Your task to perform on an android device: Is it going to rain tomorrow? Image 0: 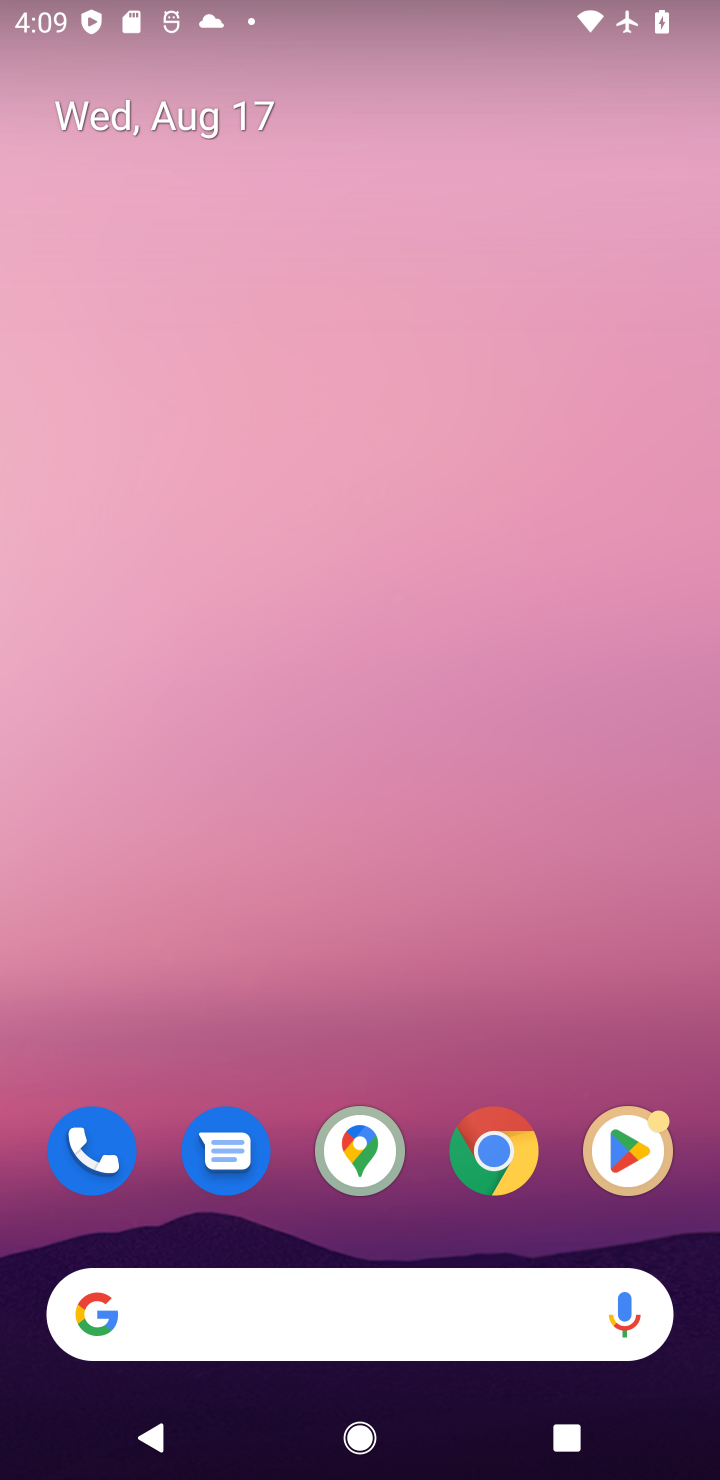
Step 0: drag from (318, 1172) to (308, 92)
Your task to perform on an android device: Is it going to rain tomorrow? Image 1: 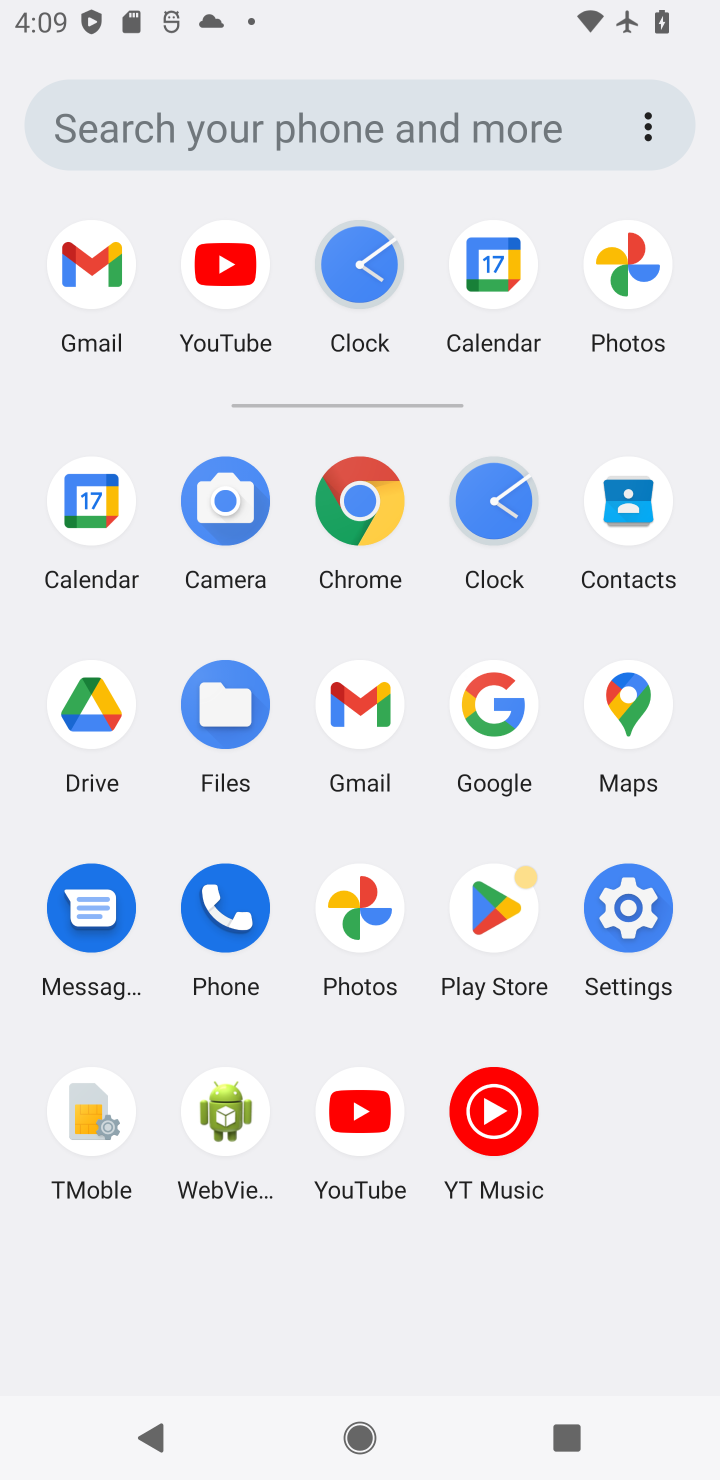
Step 1: click (369, 500)
Your task to perform on an android device: Is it going to rain tomorrow? Image 2: 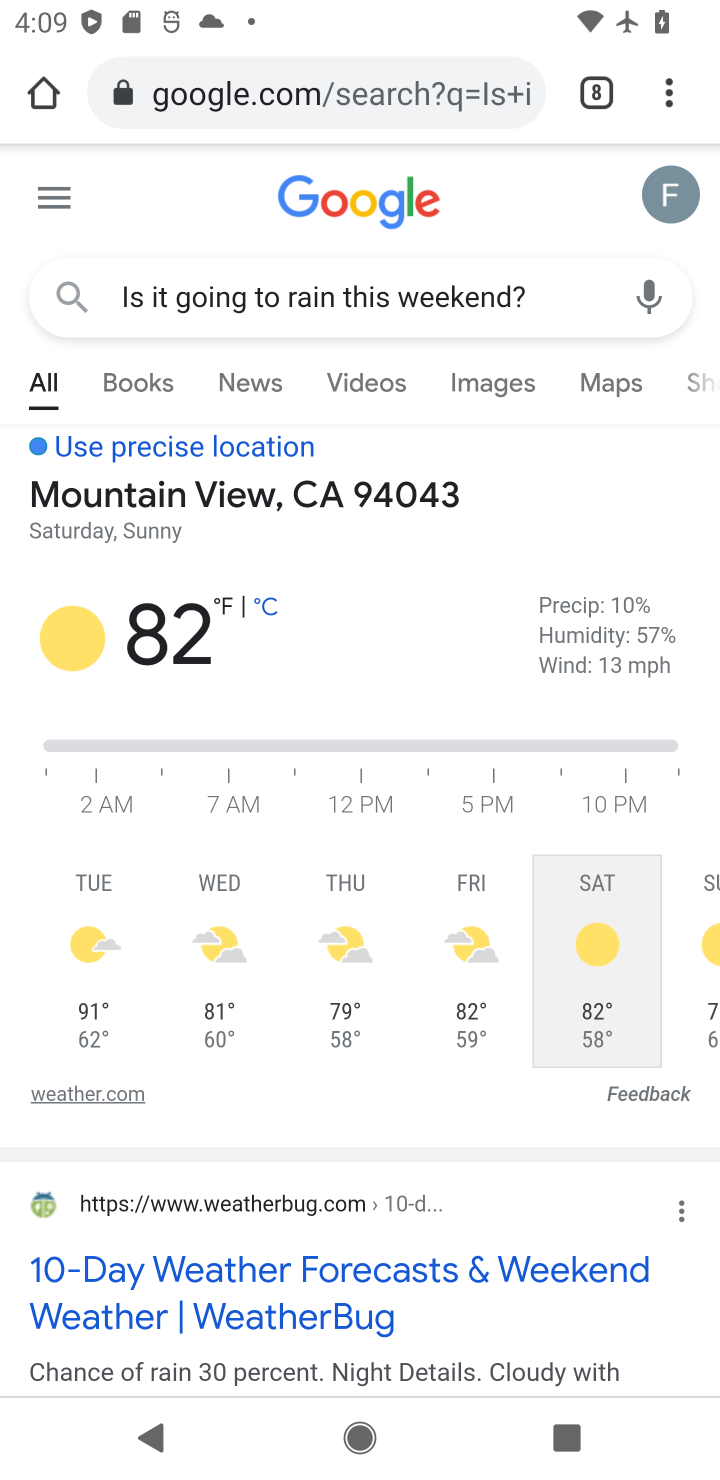
Step 2: click (674, 94)
Your task to perform on an android device: Is it going to rain tomorrow? Image 3: 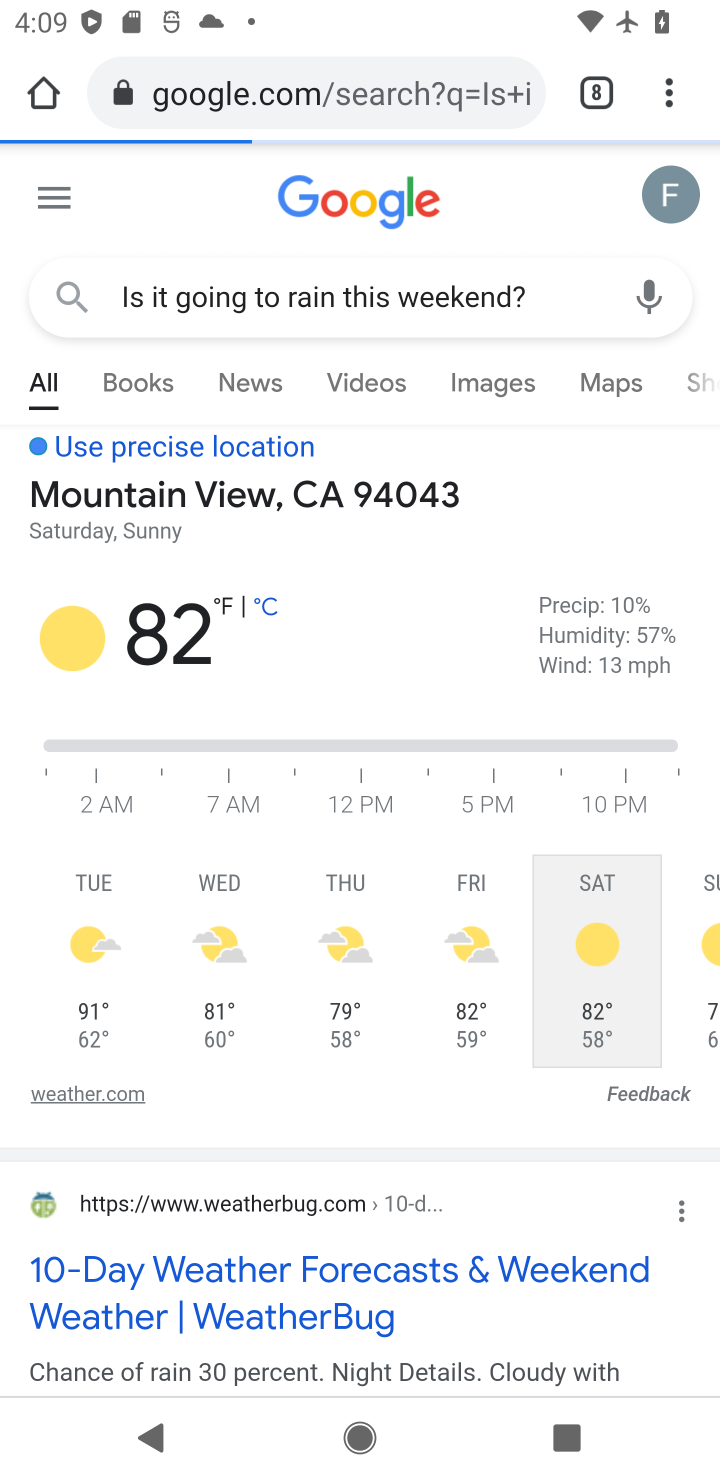
Step 3: click (662, 94)
Your task to perform on an android device: Is it going to rain tomorrow? Image 4: 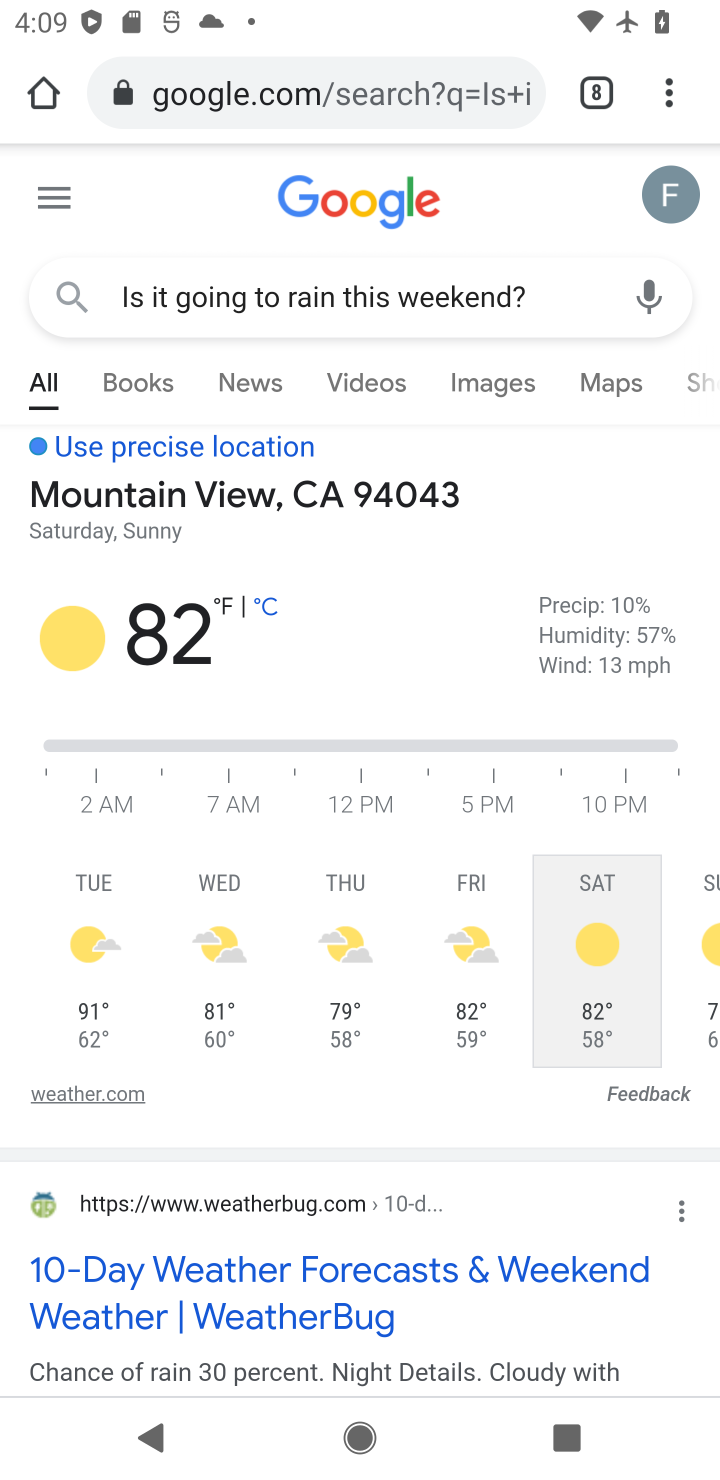
Step 4: click (647, 83)
Your task to perform on an android device: Is it going to rain tomorrow? Image 5: 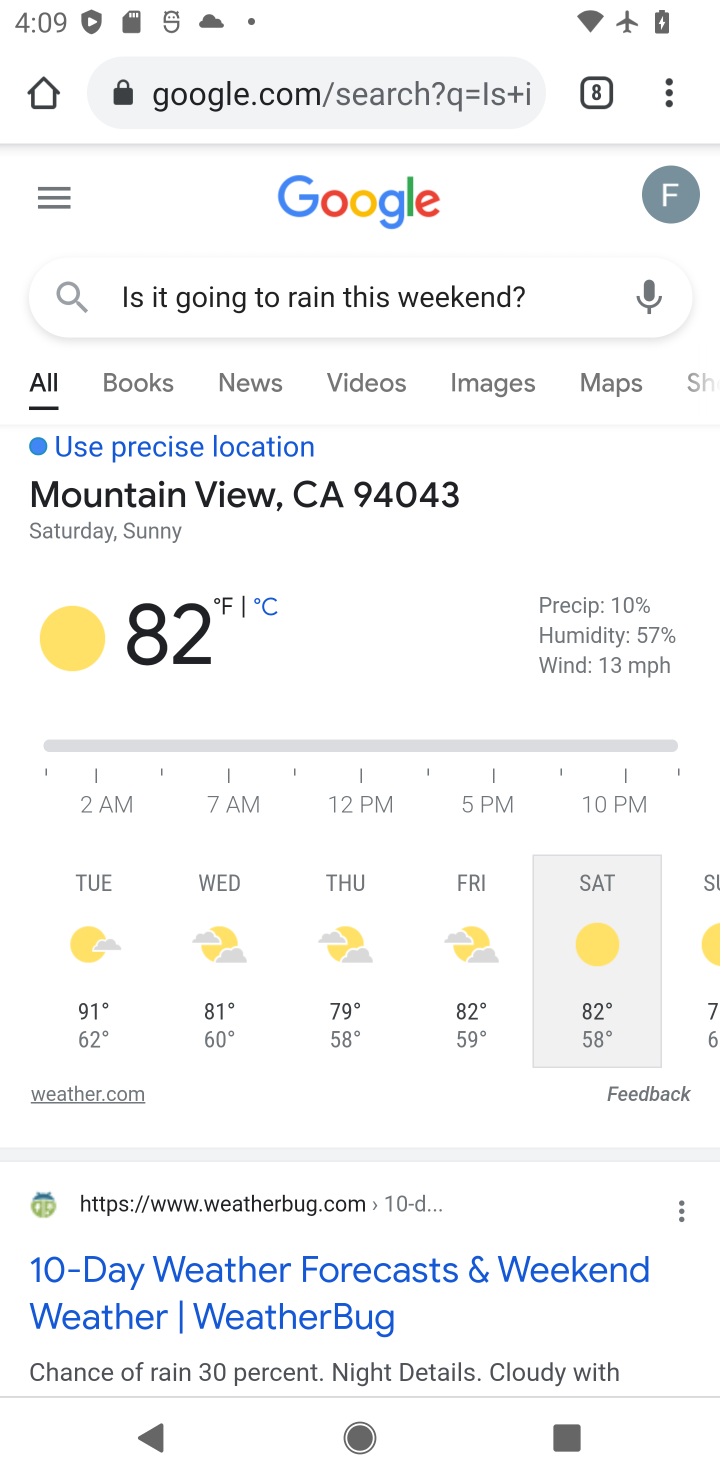
Step 5: click (635, 83)
Your task to perform on an android device: Is it going to rain tomorrow? Image 6: 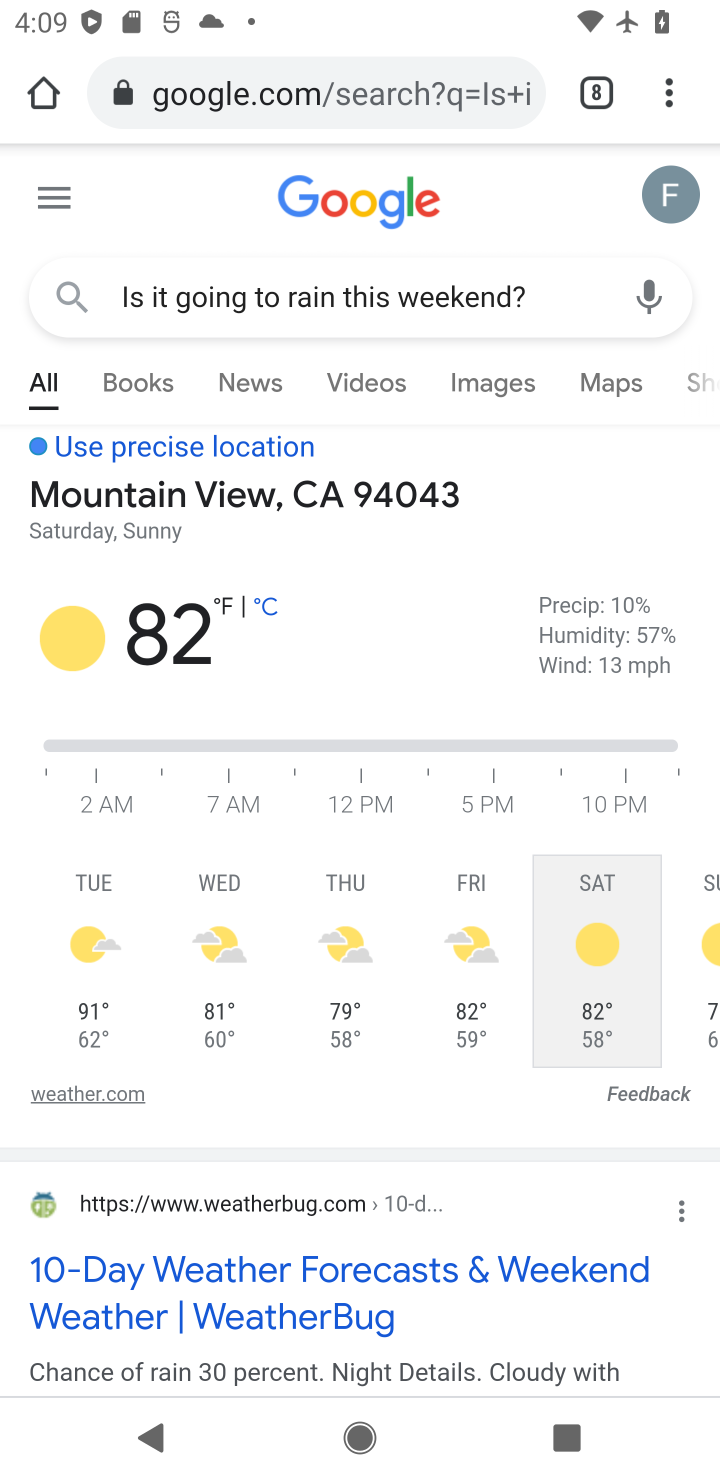
Step 6: click (663, 97)
Your task to perform on an android device: Is it going to rain tomorrow? Image 7: 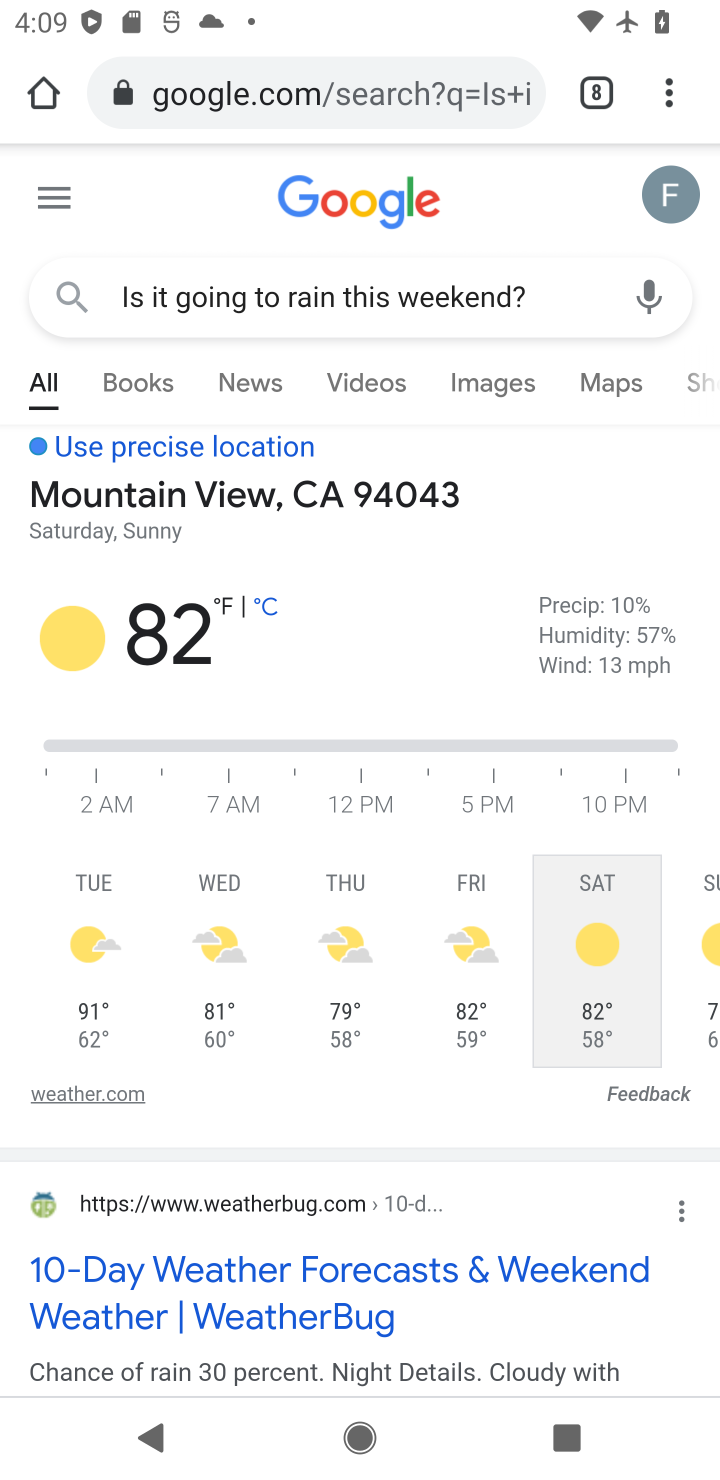
Step 7: click (648, 82)
Your task to perform on an android device: Is it going to rain tomorrow? Image 8: 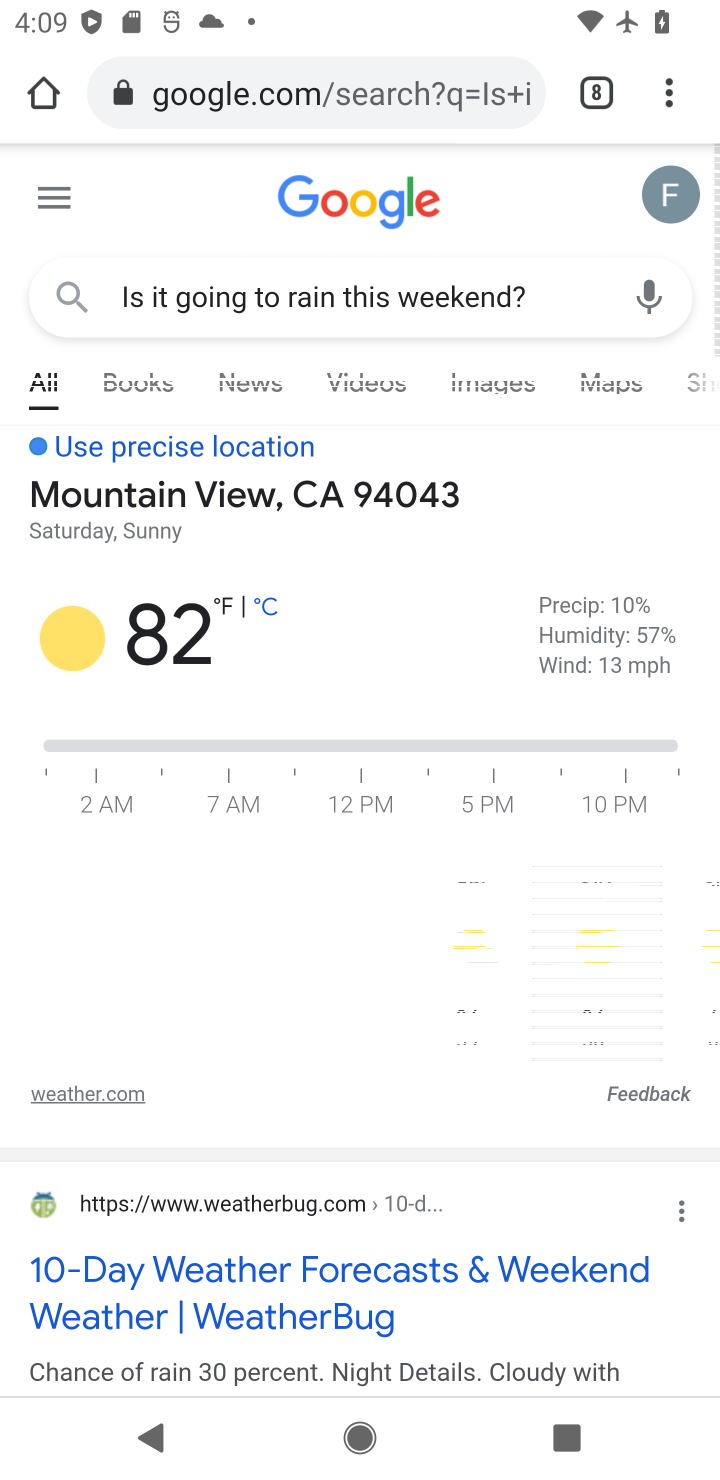
Step 8: click (672, 92)
Your task to perform on an android device: Is it going to rain tomorrow? Image 9: 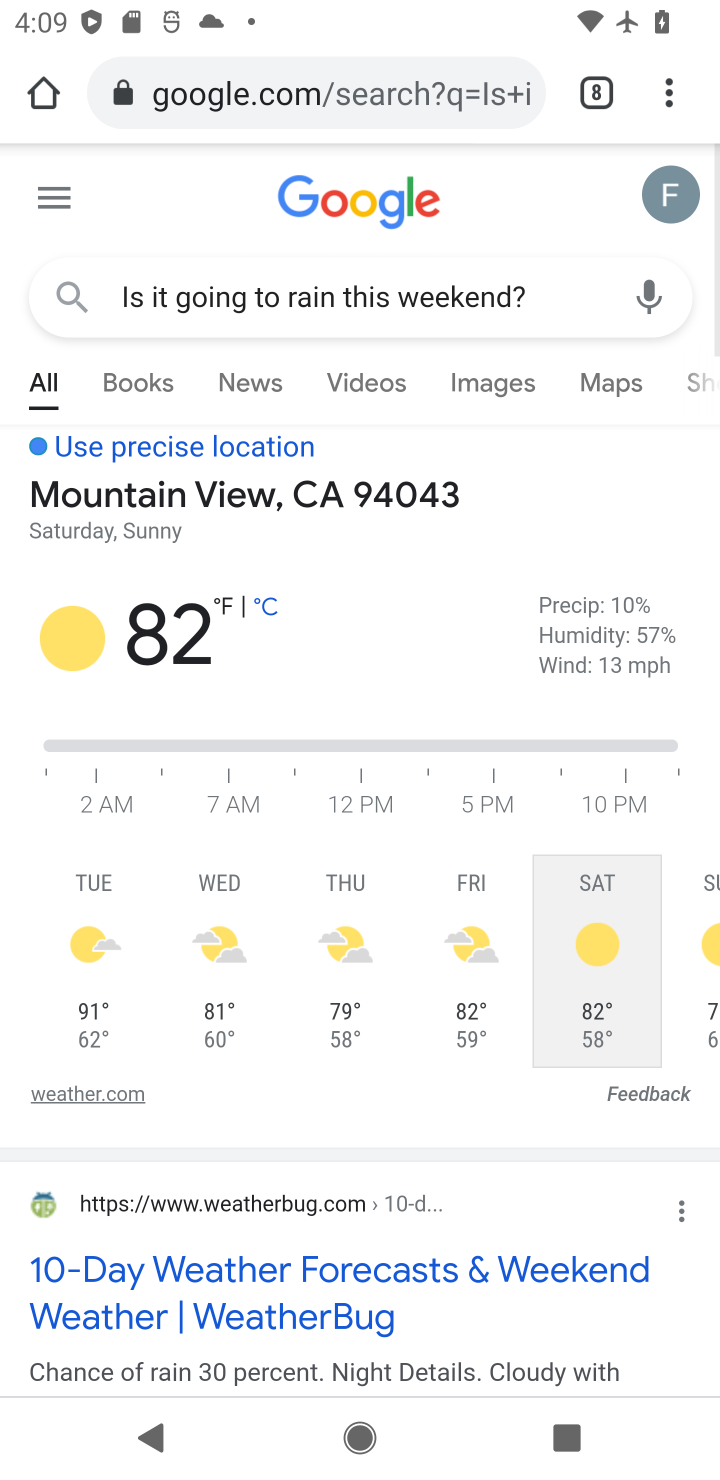
Step 9: click (672, 92)
Your task to perform on an android device: Is it going to rain tomorrow? Image 10: 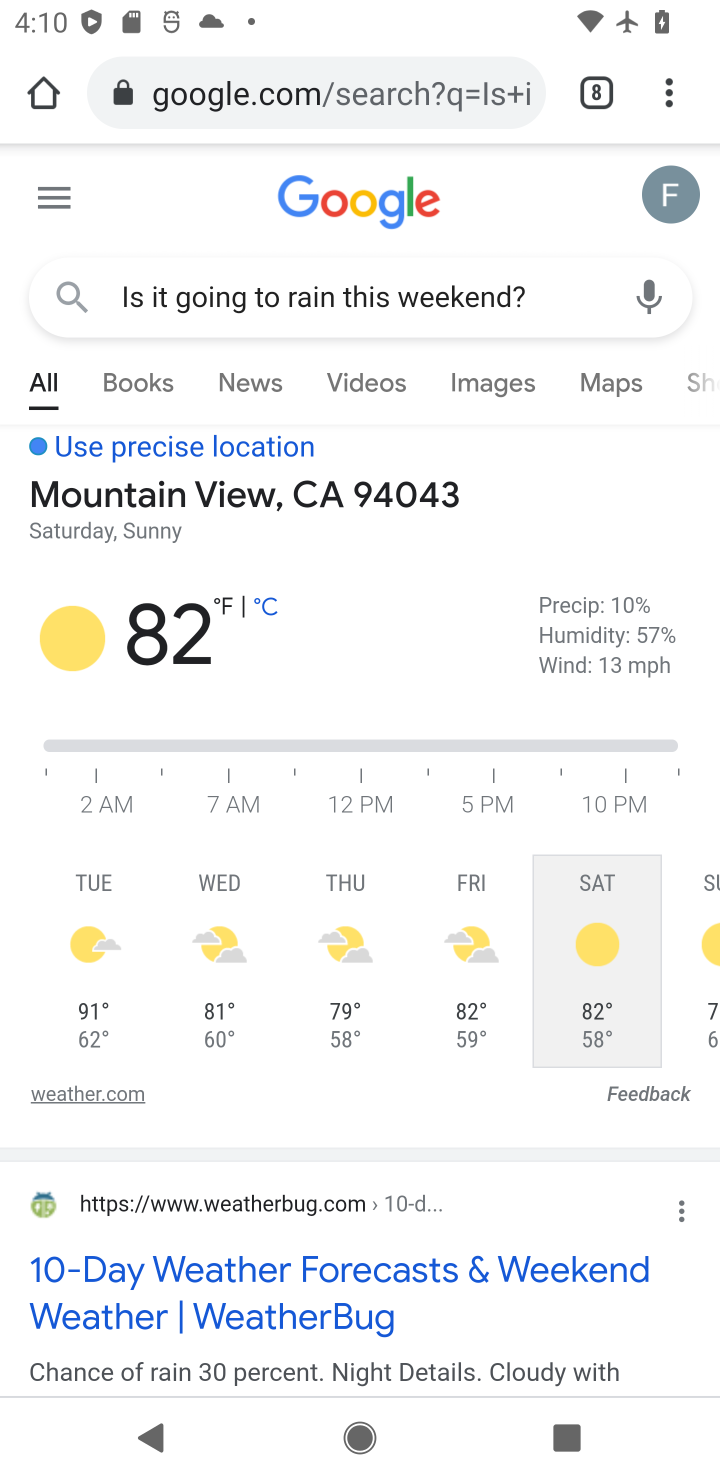
Step 10: click (666, 88)
Your task to perform on an android device: Is it going to rain tomorrow? Image 11: 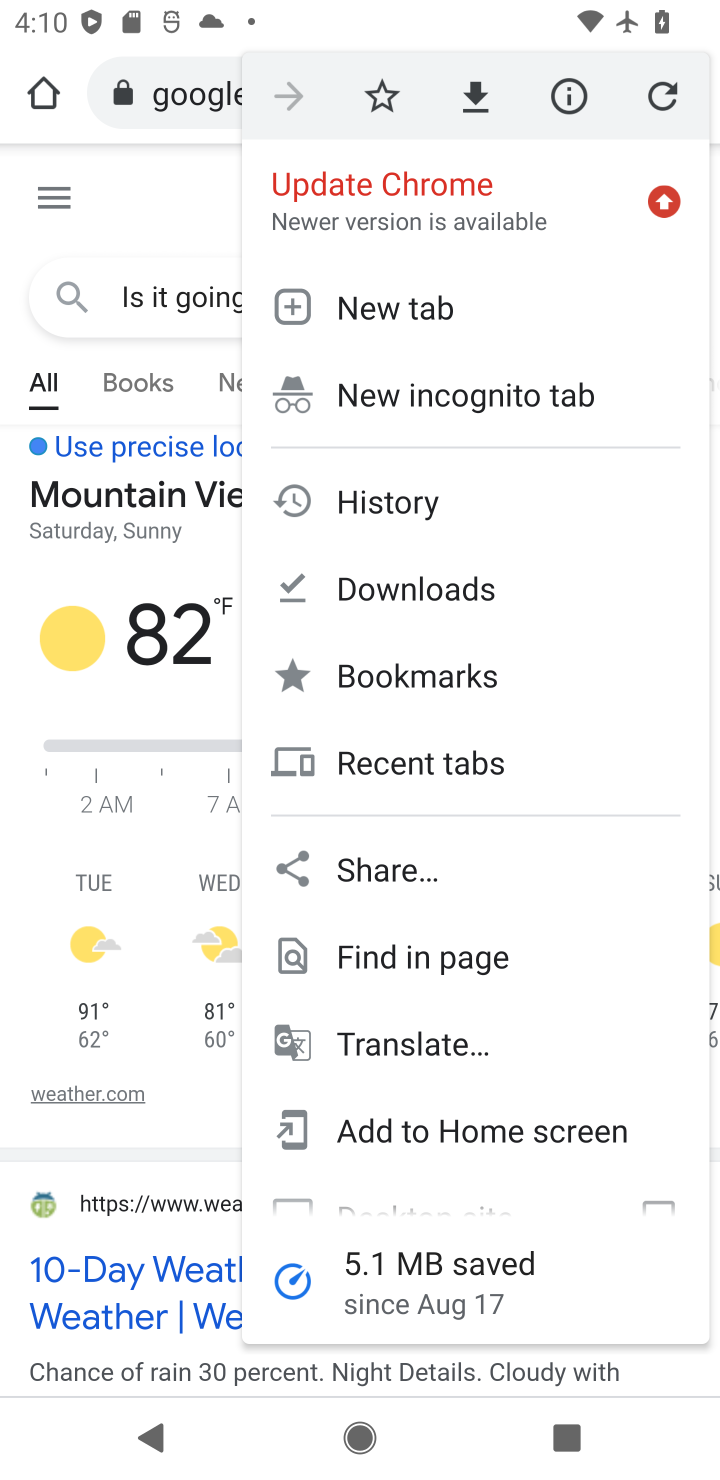
Step 11: click (402, 294)
Your task to perform on an android device: Is it going to rain tomorrow? Image 12: 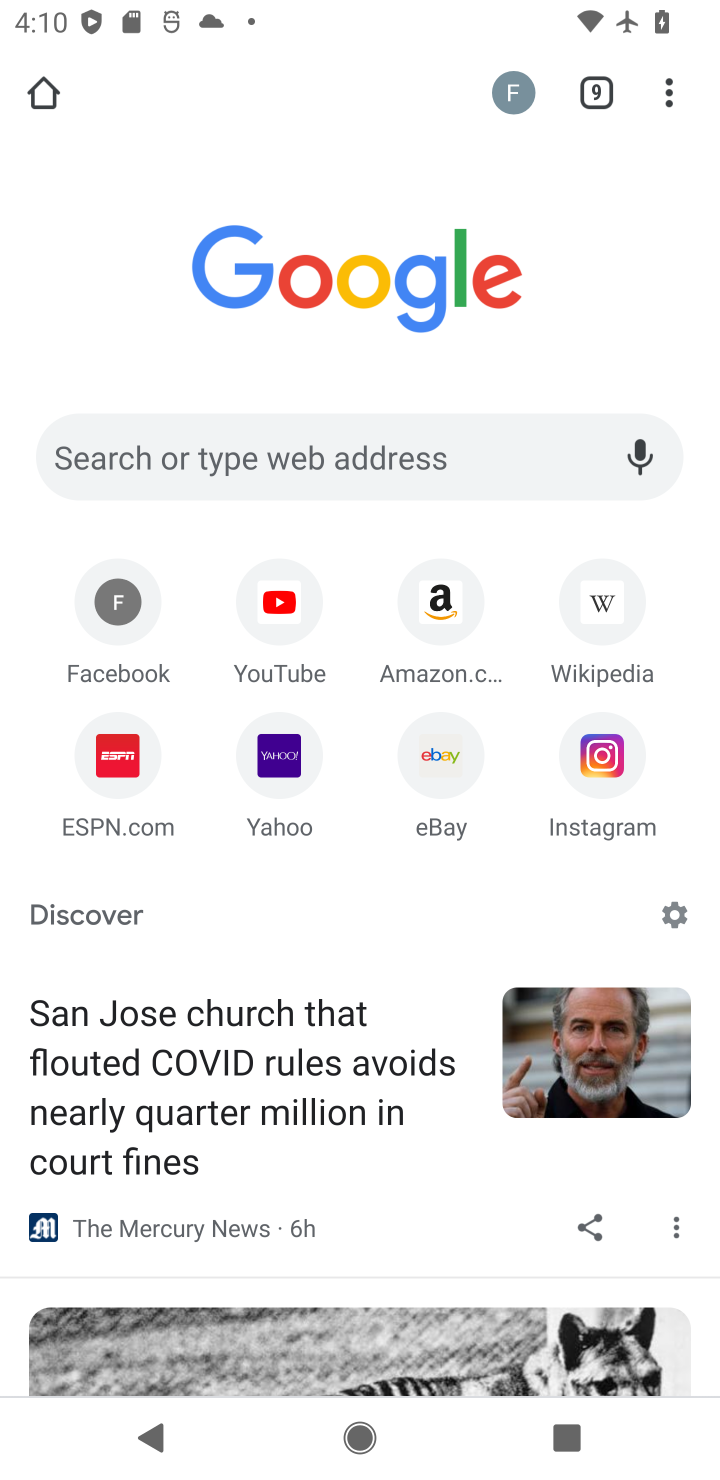
Step 12: click (413, 459)
Your task to perform on an android device: Is it going to rain tomorrow? Image 13: 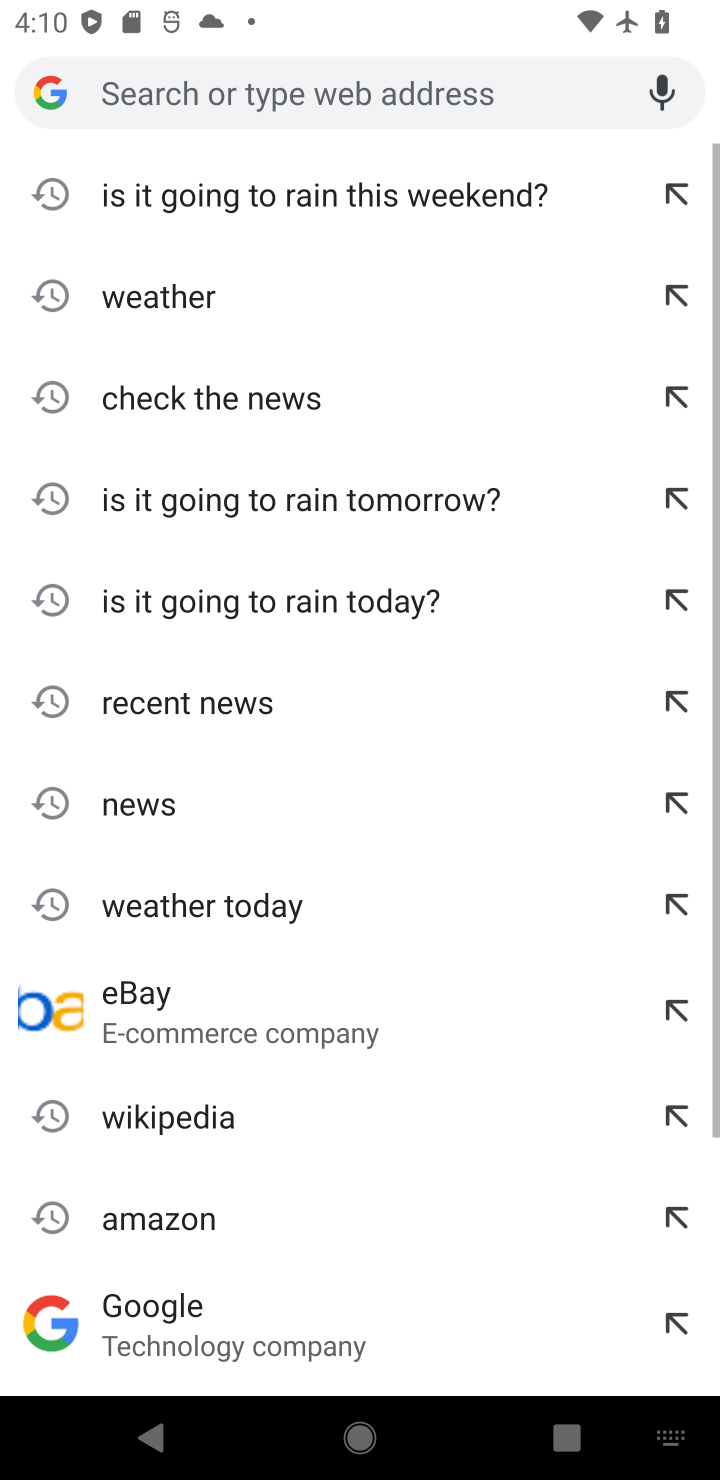
Step 13: type "Is it going to rain tomorrow? "
Your task to perform on an android device: Is it going to rain tomorrow? Image 14: 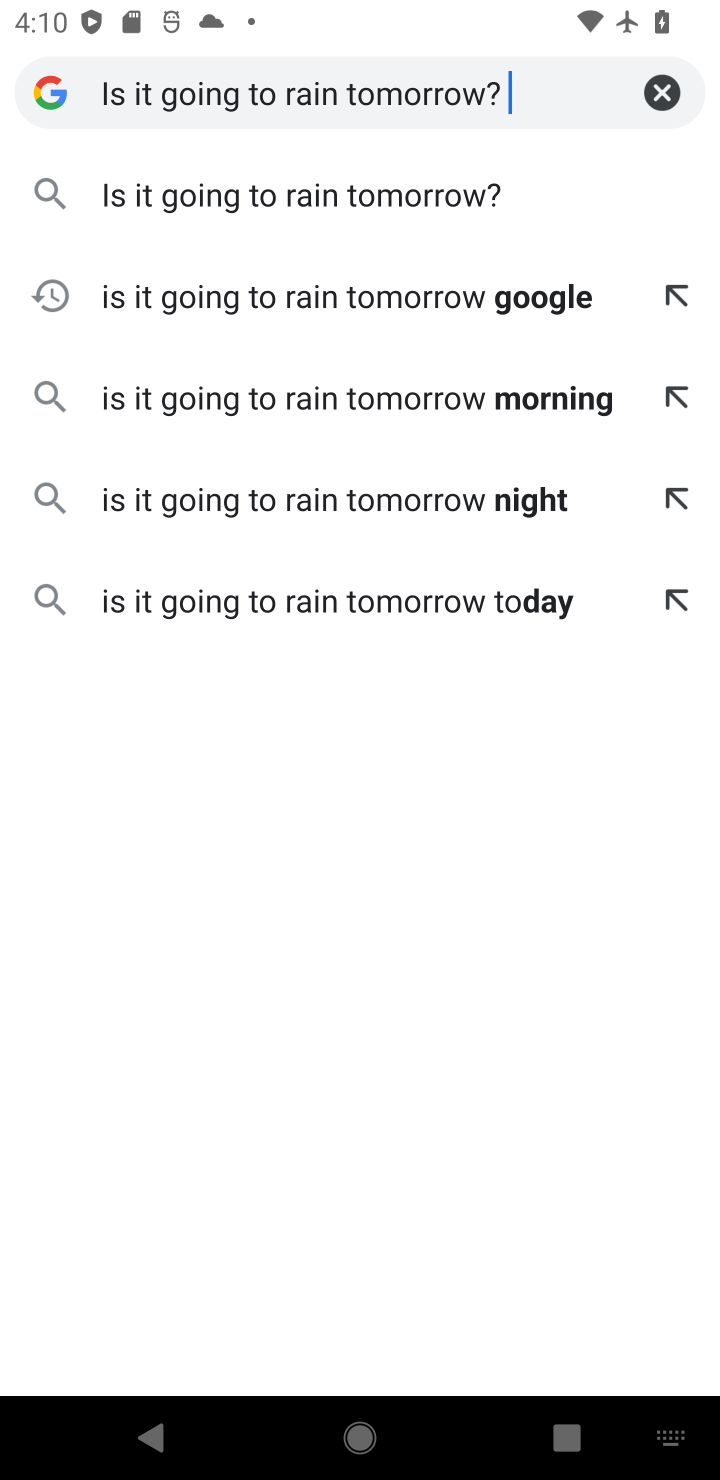
Step 14: drag from (208, 518) to (180, 1068)
Your task to perform on an android device: Is it going to rain tomorrow? Image 15: 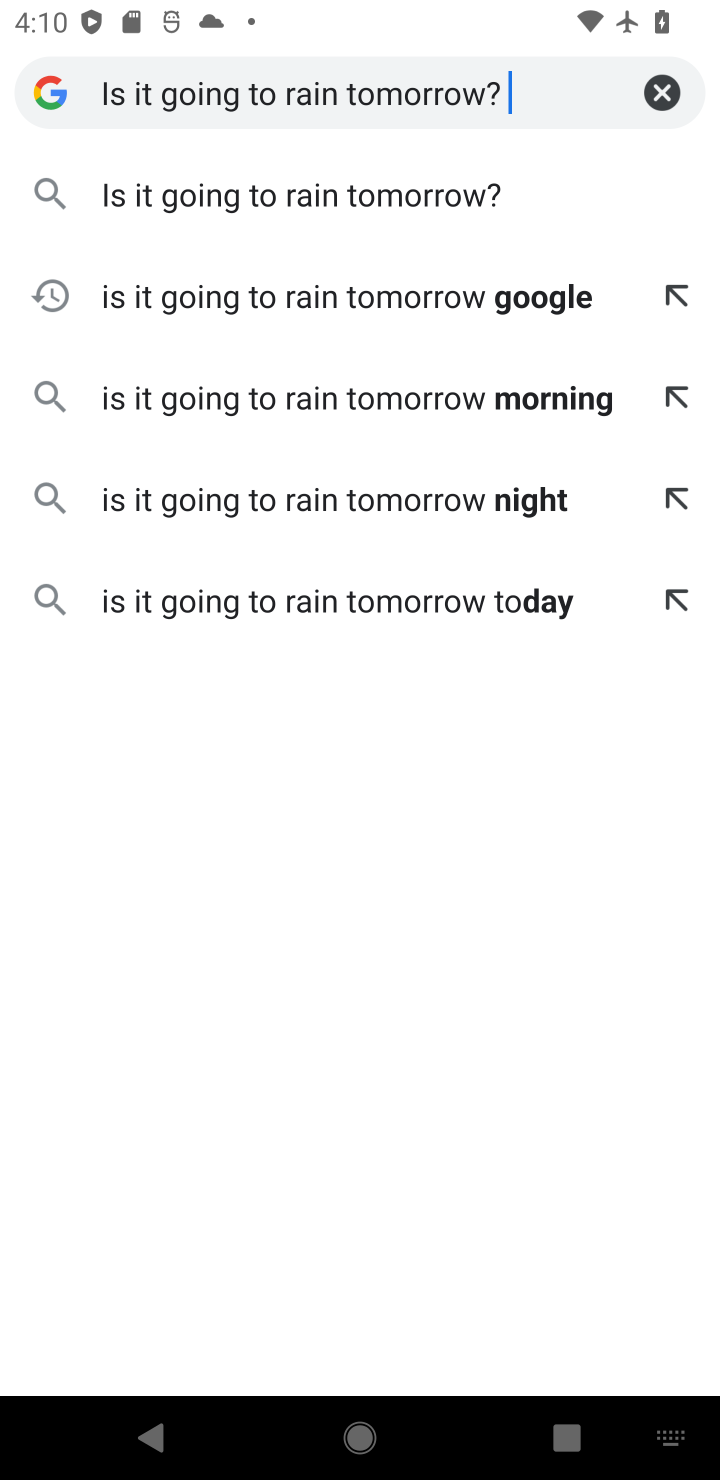
Step 15: click (293, 157)
Your task to perform on an android device: Is it going to rain tomorrow? Image 16: 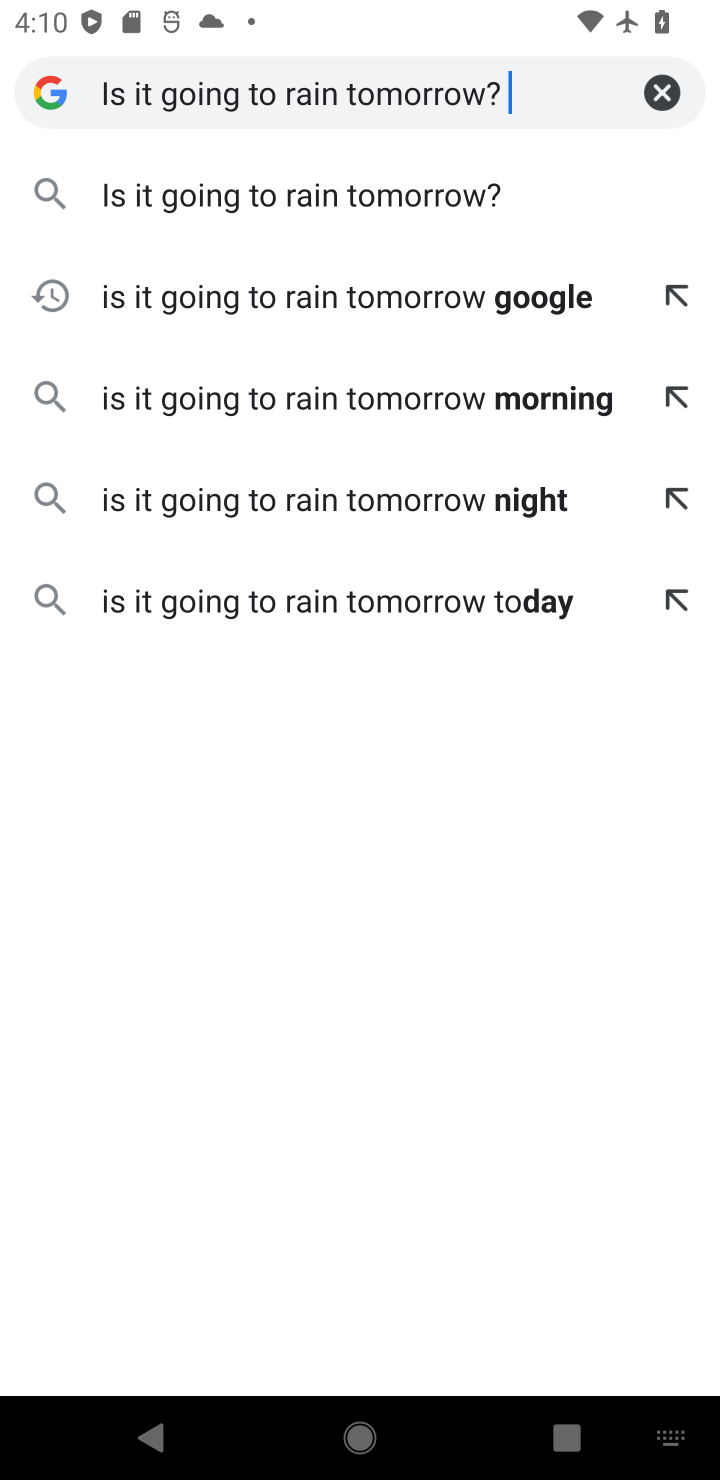
Step 16: click (293, 188)
Your task to perform on an android device: Is it going to rain tomorrow? Image 17: 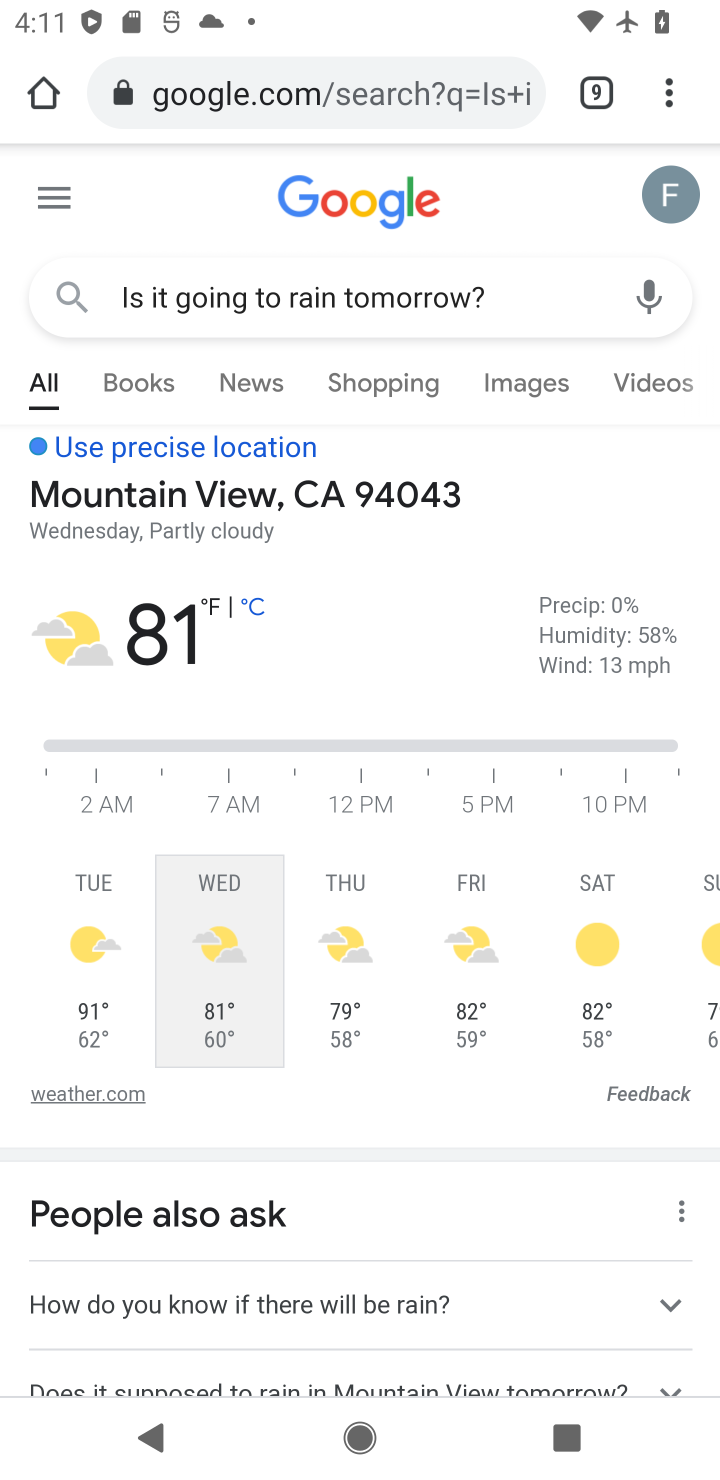
Step 17: task complete